Your task to perform on an android device: turn off notifications in google photos Image 0: 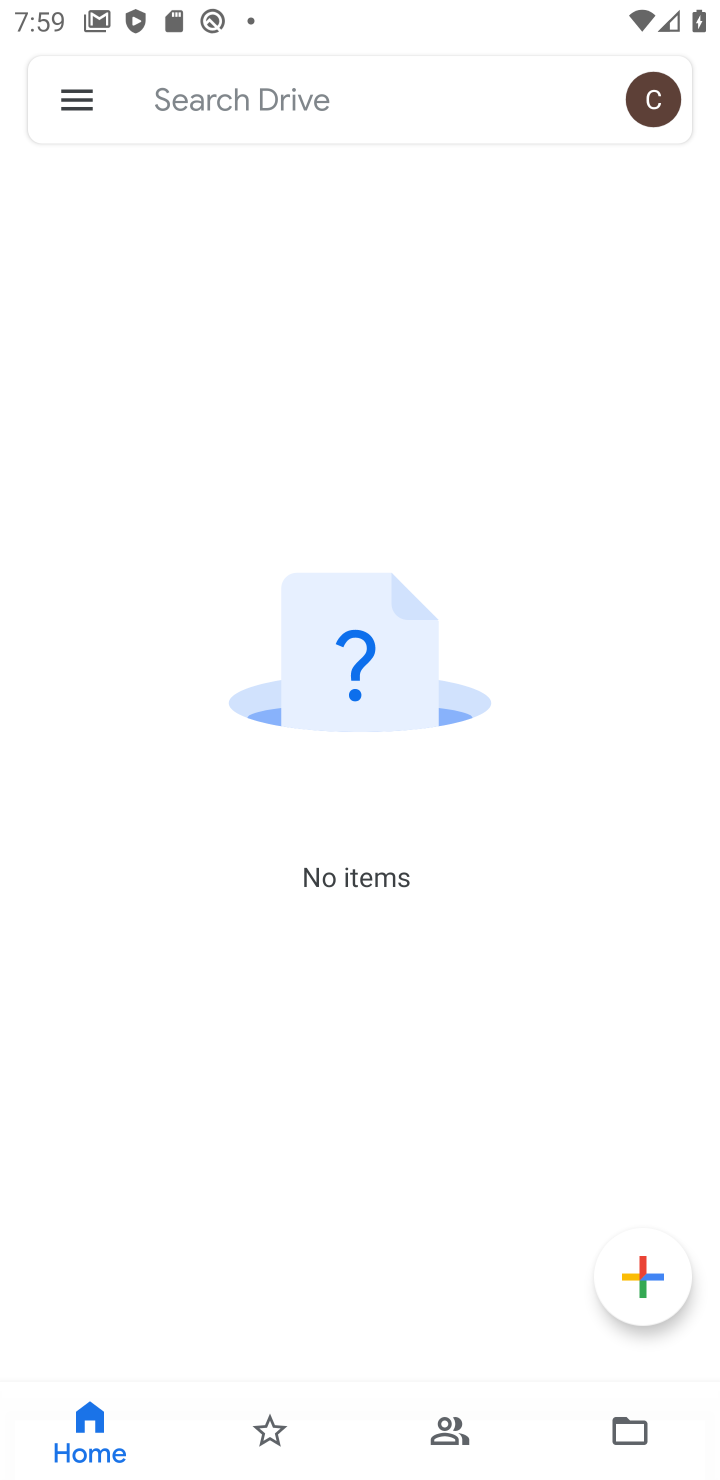
Step 0: press home button
Your task to perform on an android device: turn off notifications in google photos Image 1: 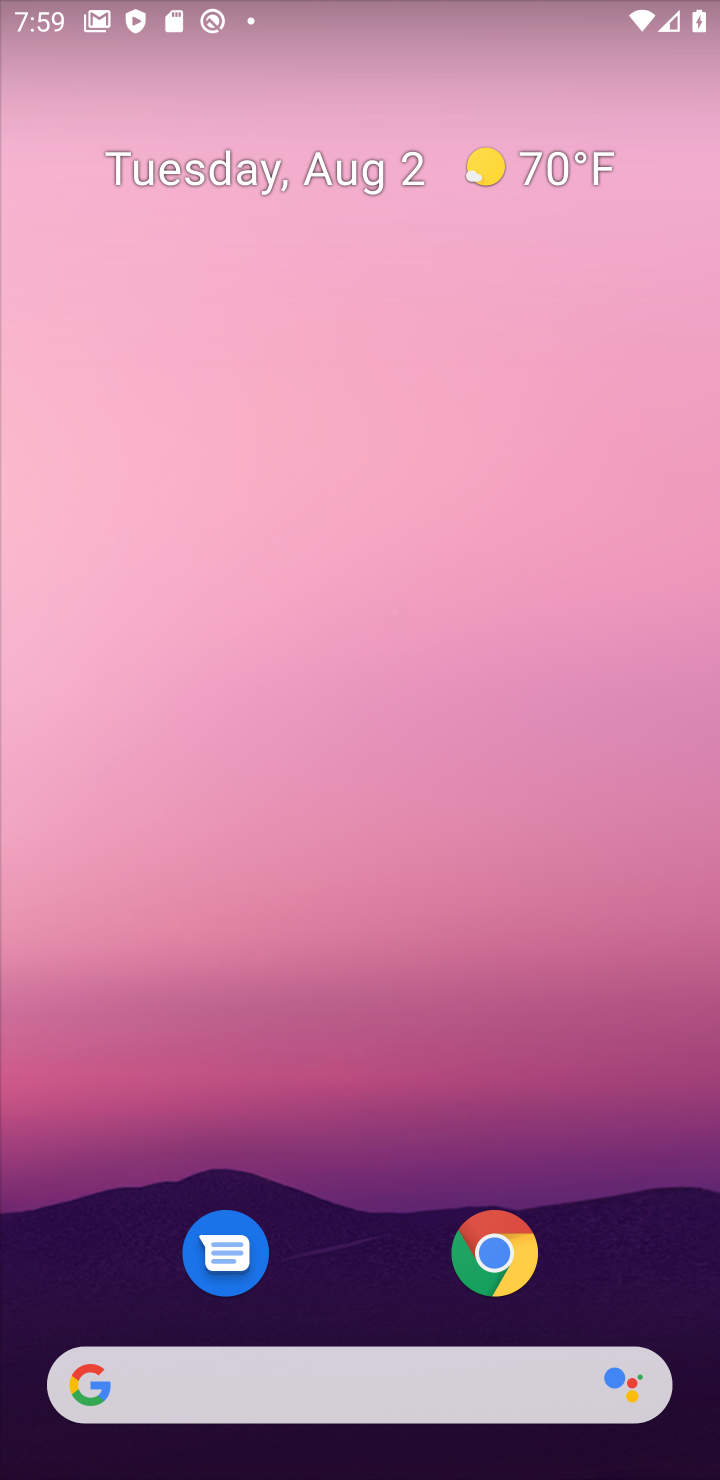
Step 1: drag from (381, 1379) to (577, 250)
Your task to perform on an android device: turn off notifications in google photos Image 2: 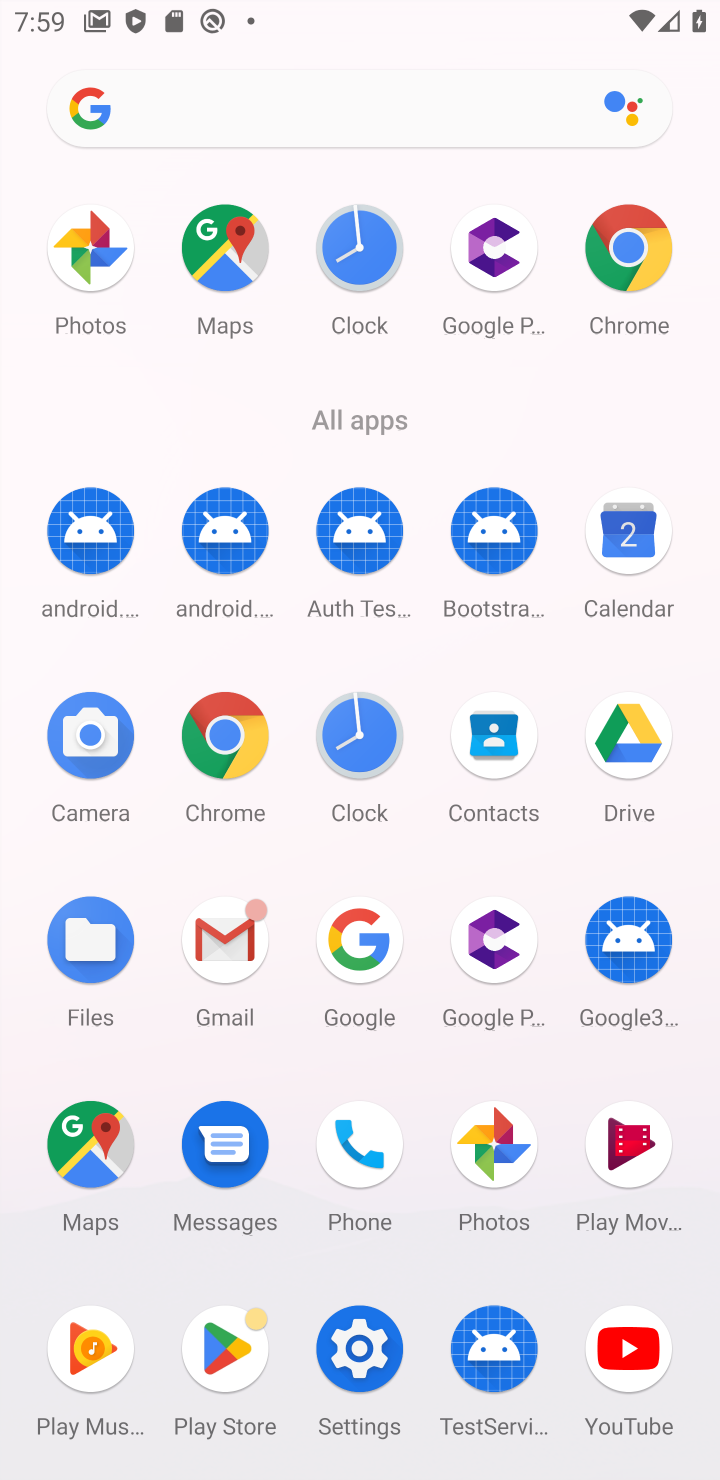
Step 2: click (98, 249)
Your task to perform on an android device: turn off notifications in google photos Image 3: 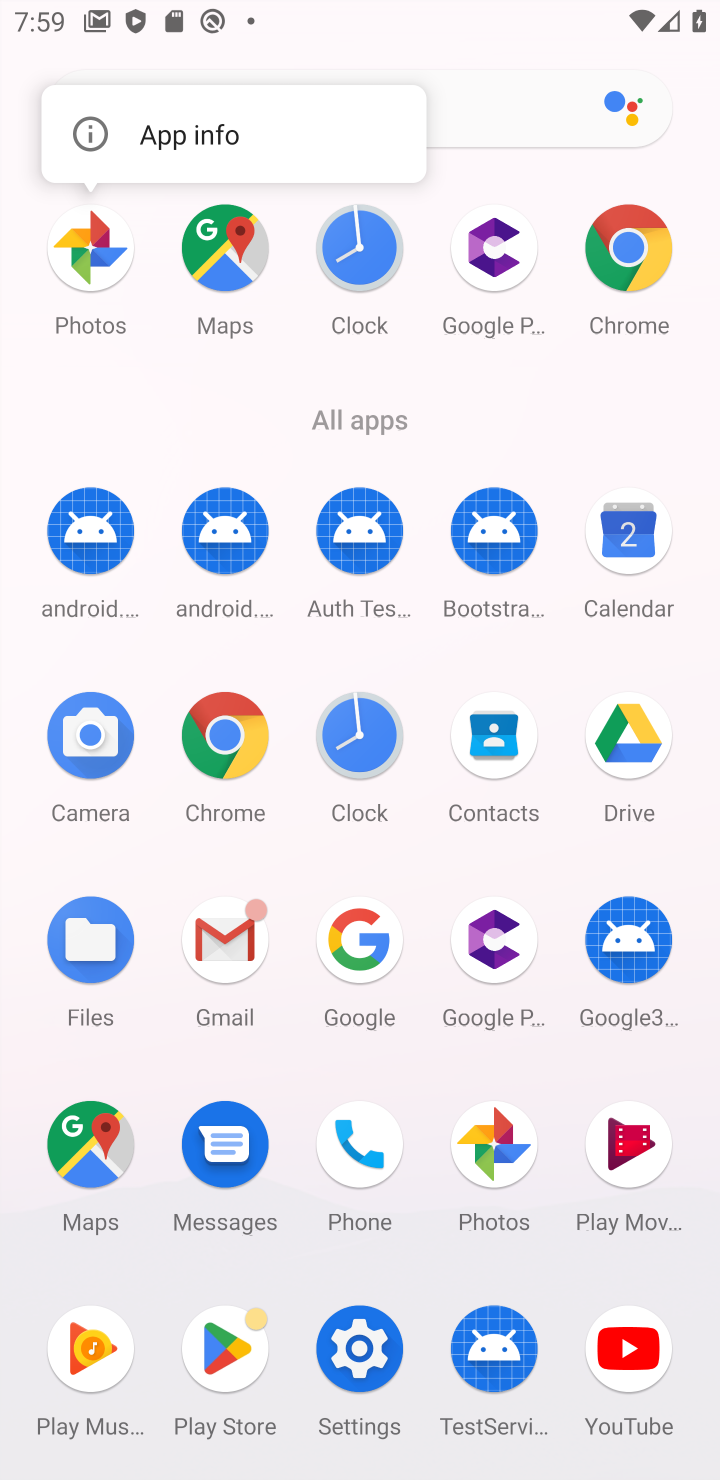
Step 3: click (95, 254)
Your task to perform on an android device: turn off notifications in google photos Image 4: 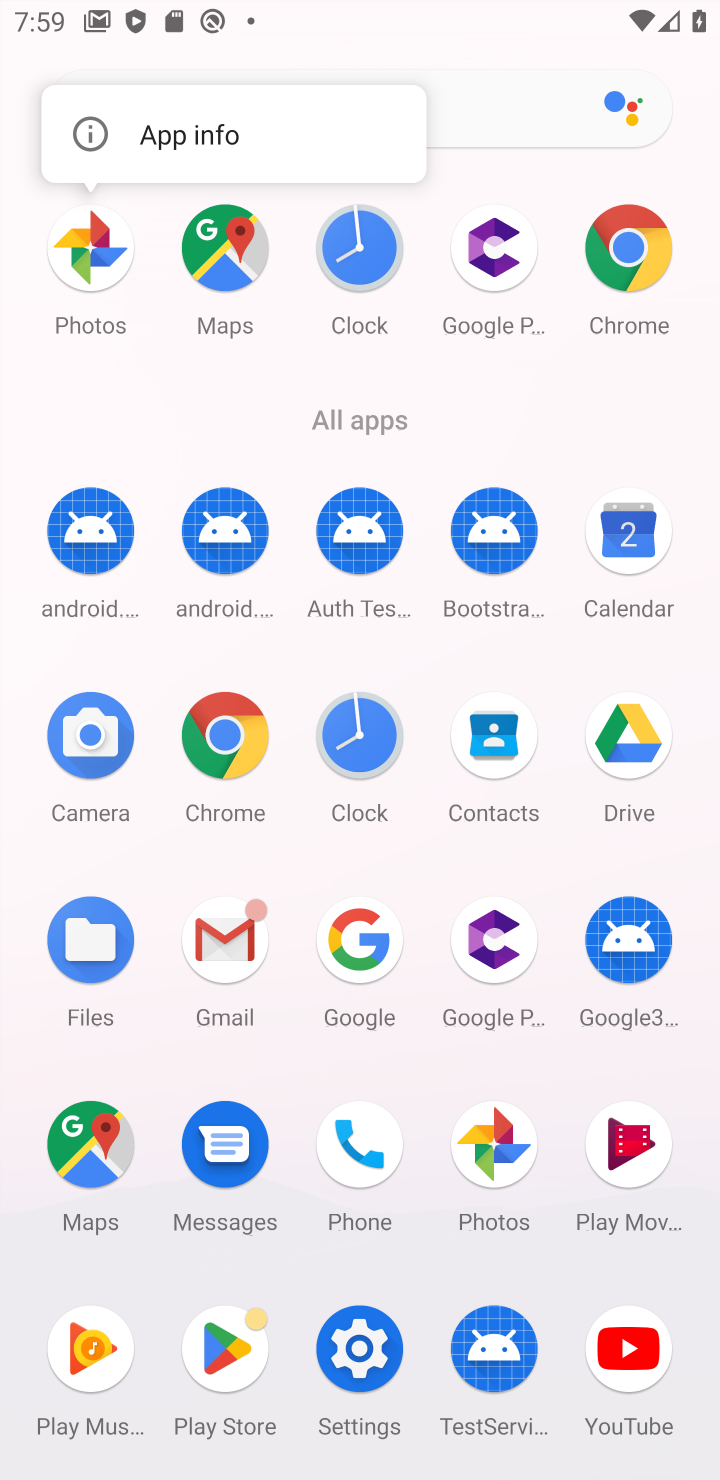
Step 4: click (95, 254)
Your task to perform on an android device: turn off notifications in google photos Image 5: 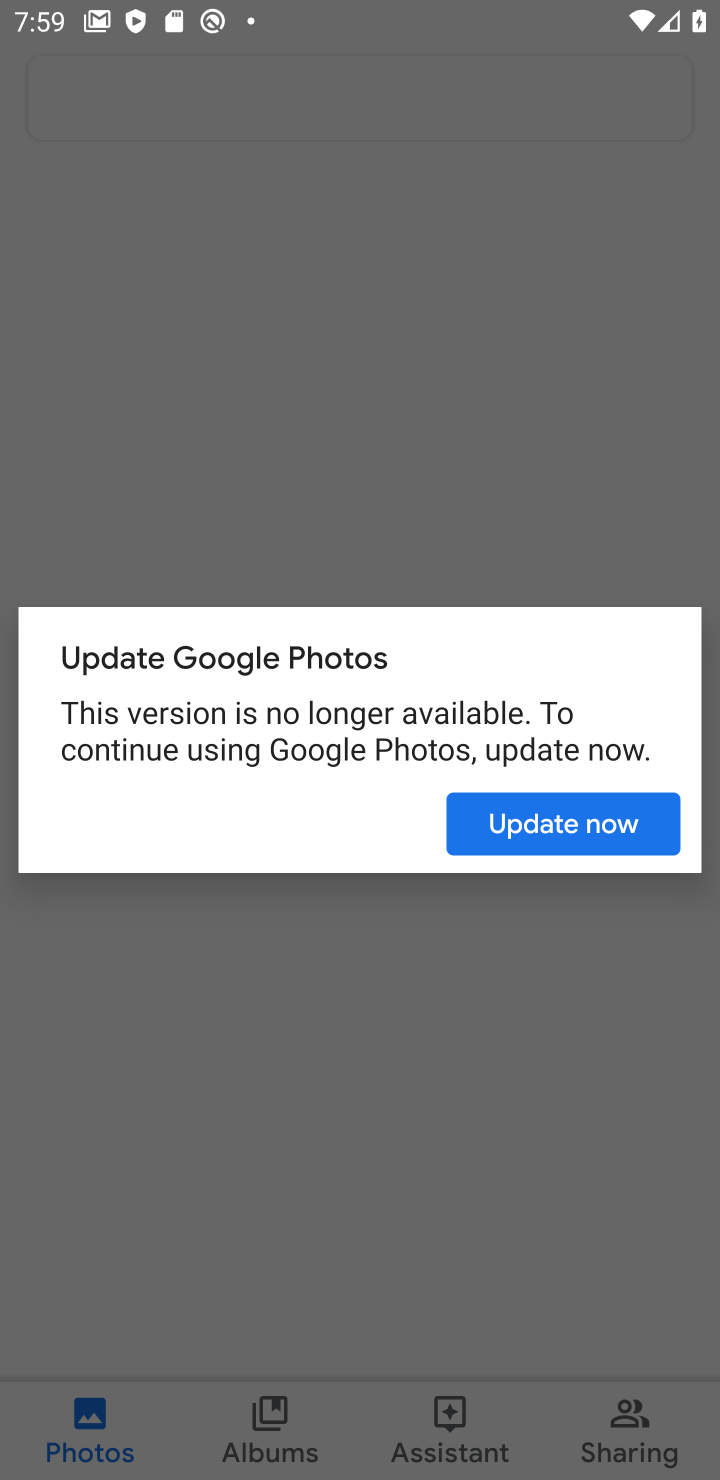
Step 5: click (528, 824)
Your task to perform on an android device: turn off notifications in google photos Image 6: 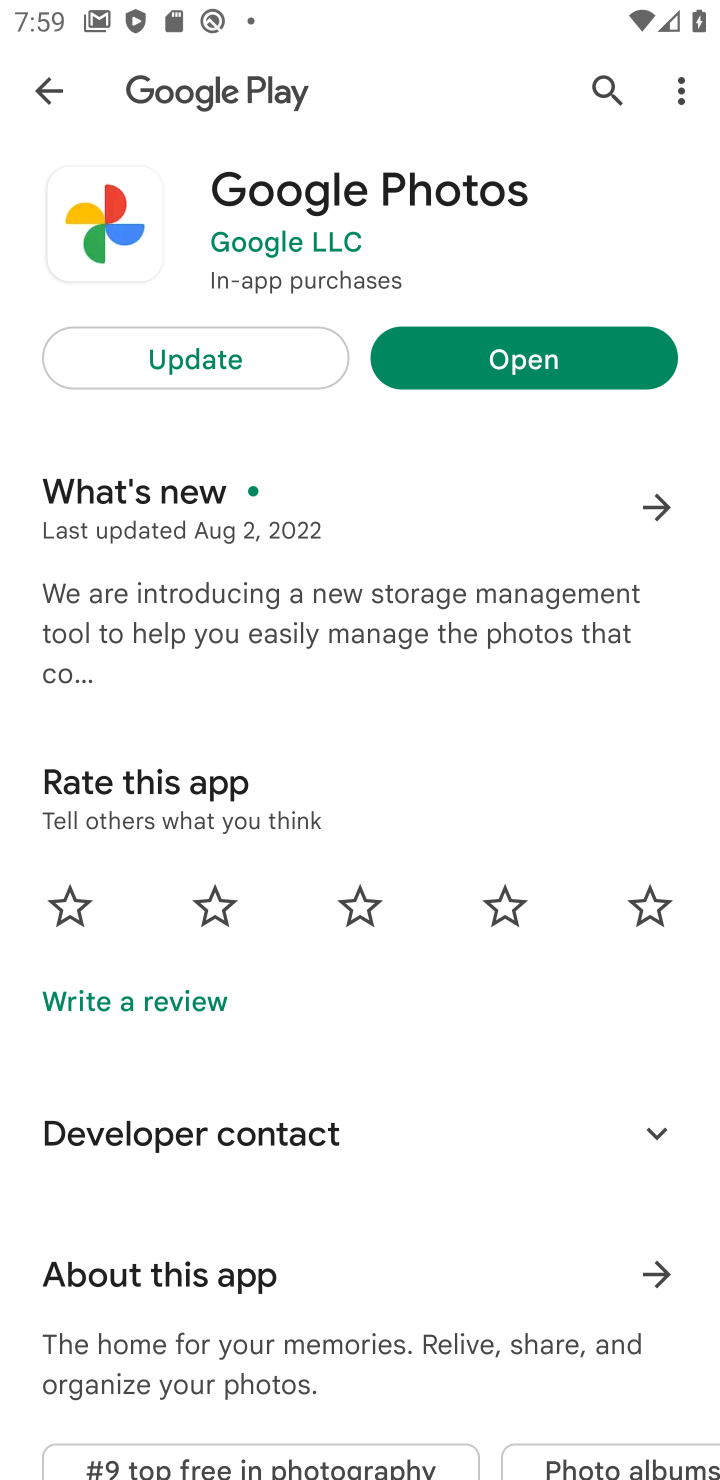
Step 6: click (497, 354)
Your task to perform on an android device: turn off notifications in google photos Image 7: 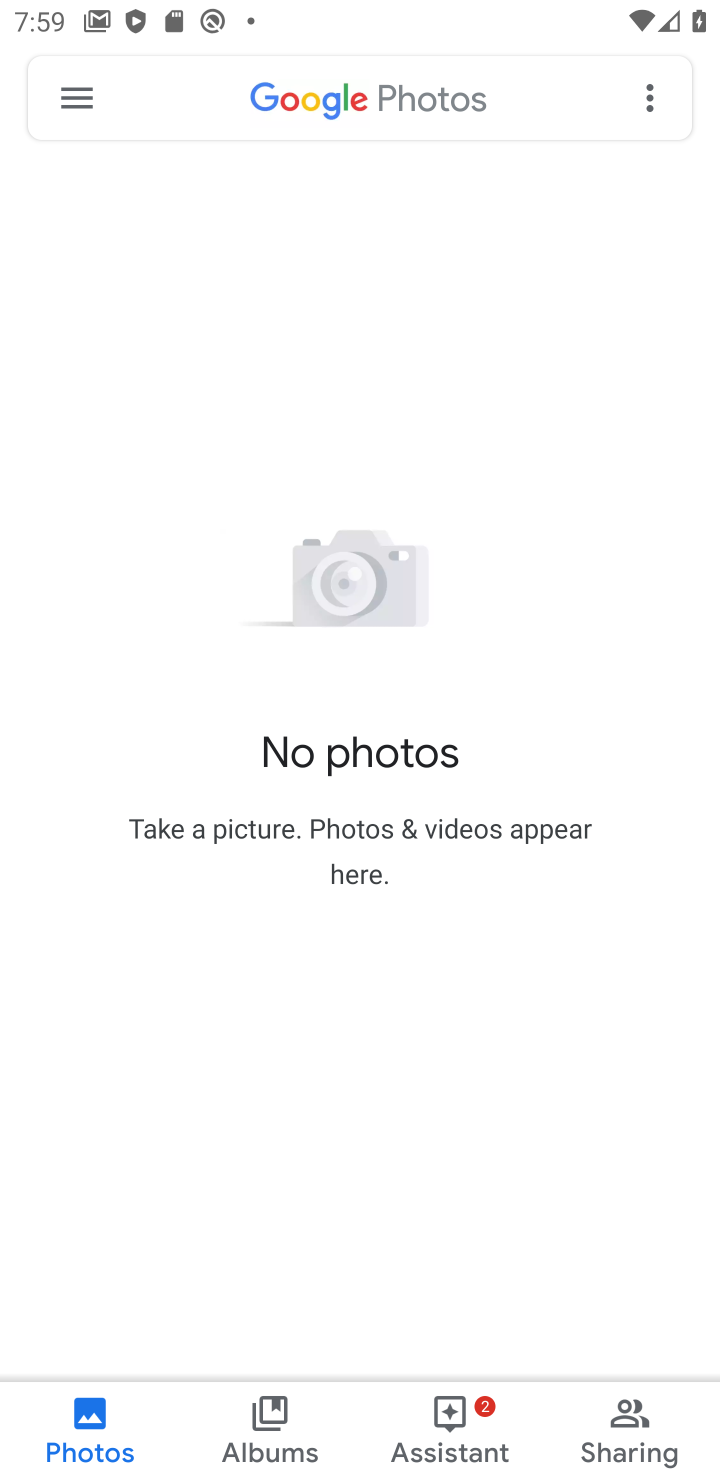
Step 7: click (71, 103)
Your task to perform on an android device: turn off notifications in google photos Image 8: 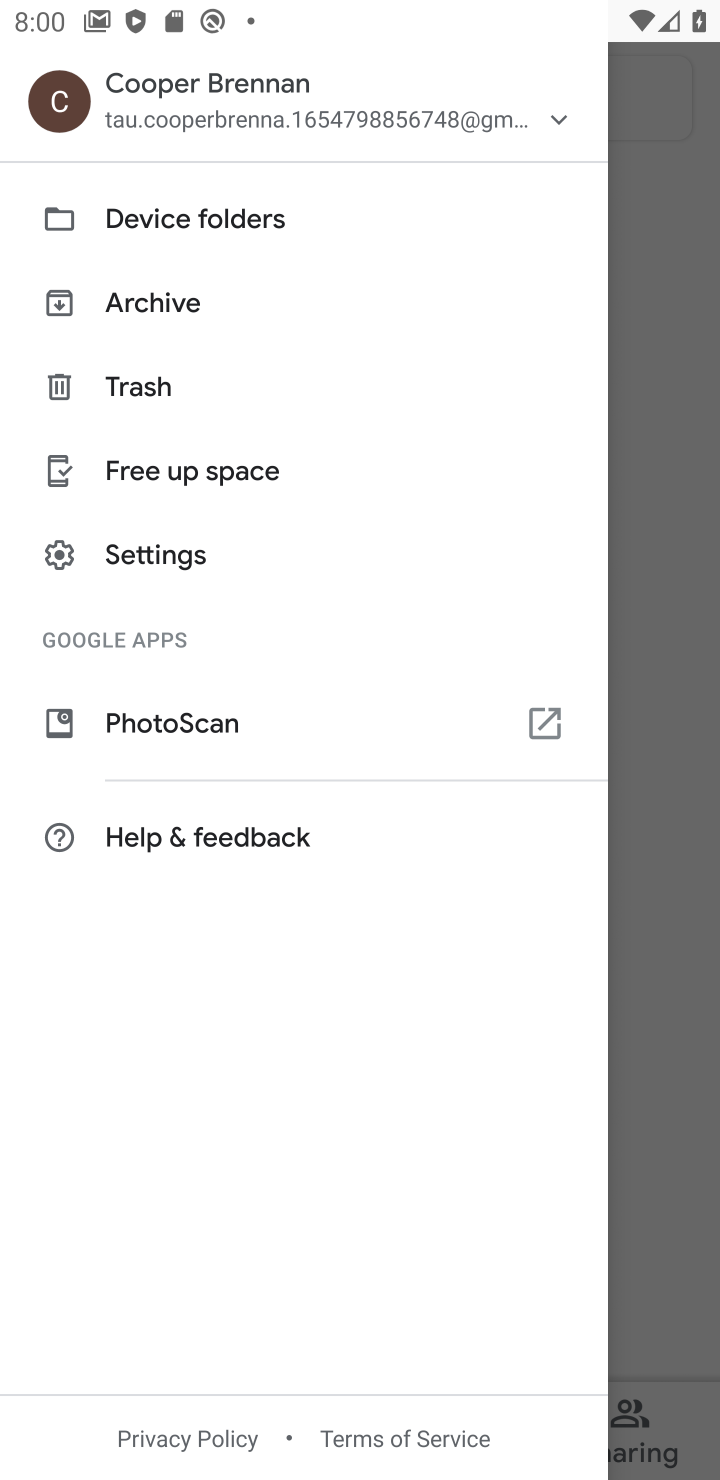
Step 8: click (165, 556)
Your task to perform on an android device: turn off notifications in google photos Image 9: 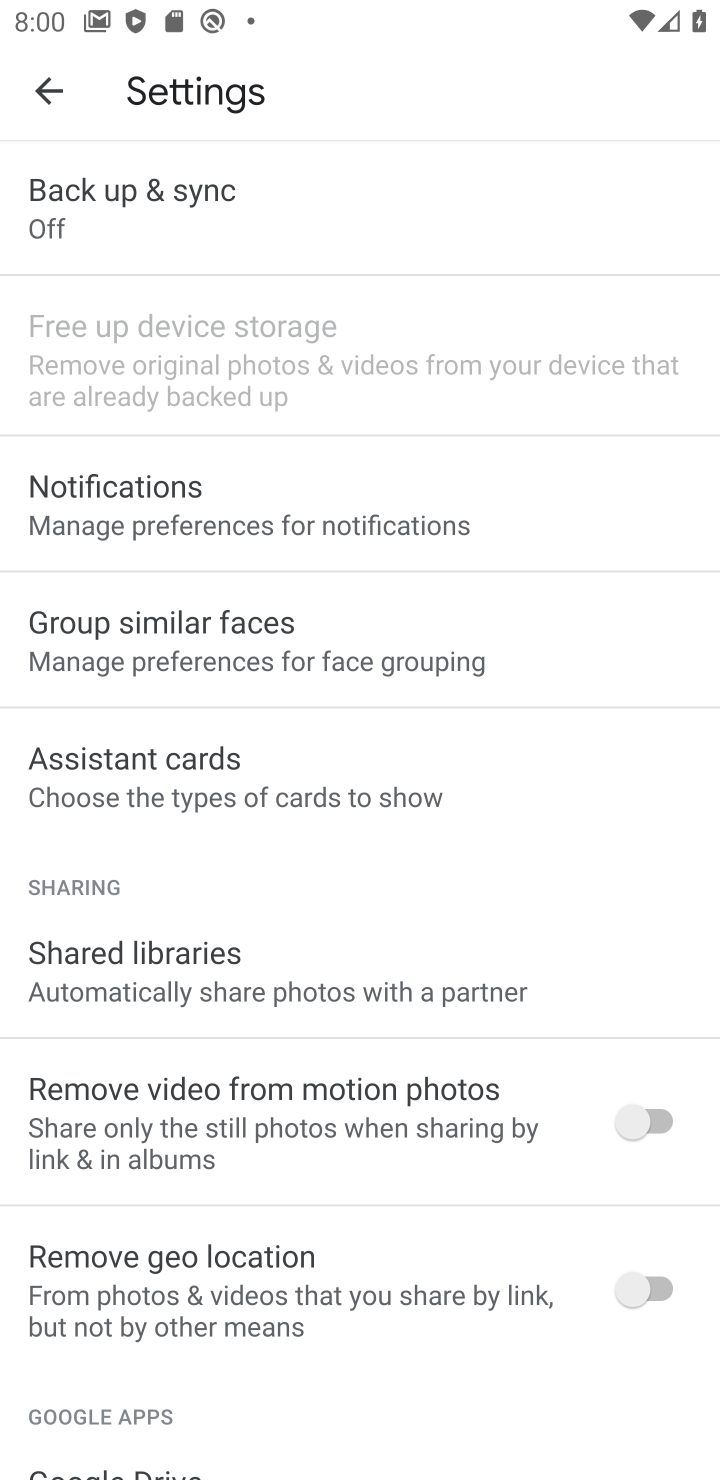
Step 9: click (223, 484)
Your task to perform on an android device: turn off notifications in google photos Image 10: 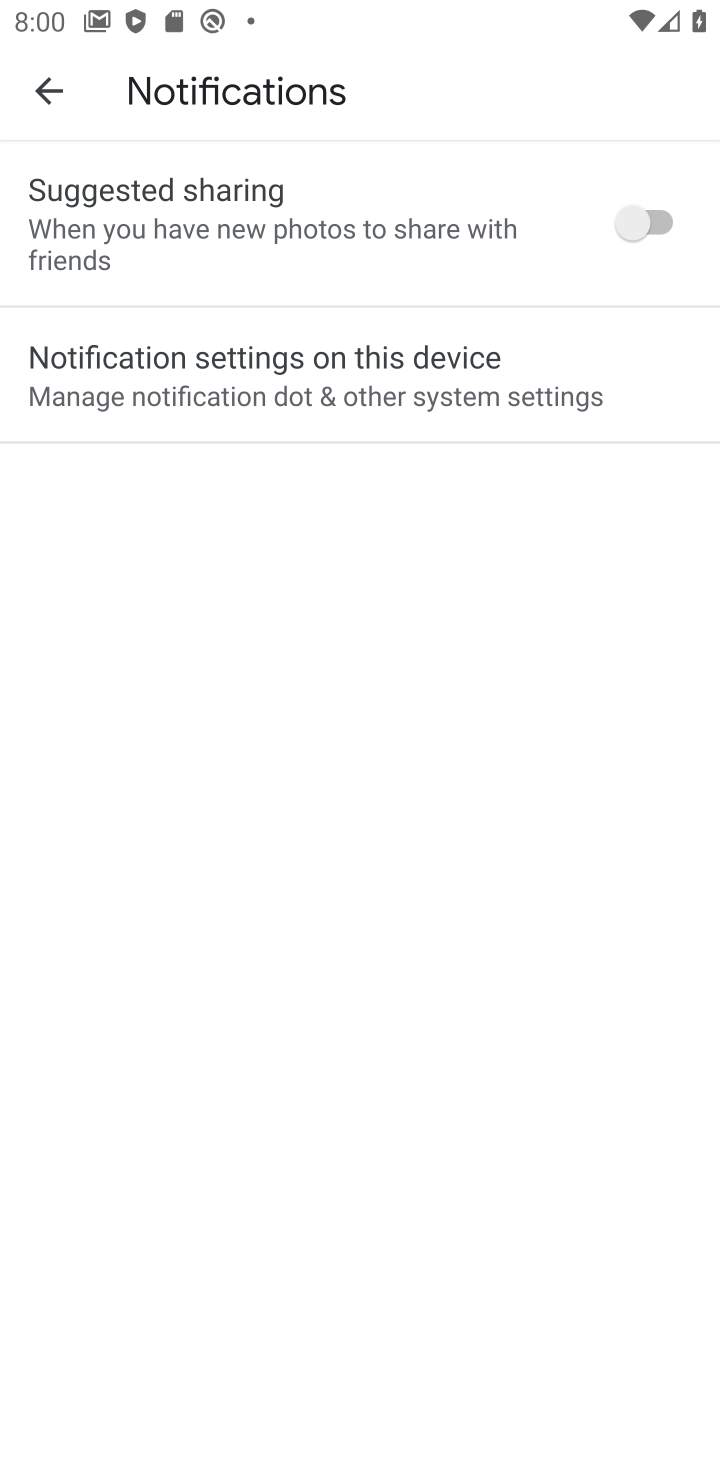
Step 10: click (537, 361)
Your task to perform on an android device: turn off notifications in google photos Image 11: 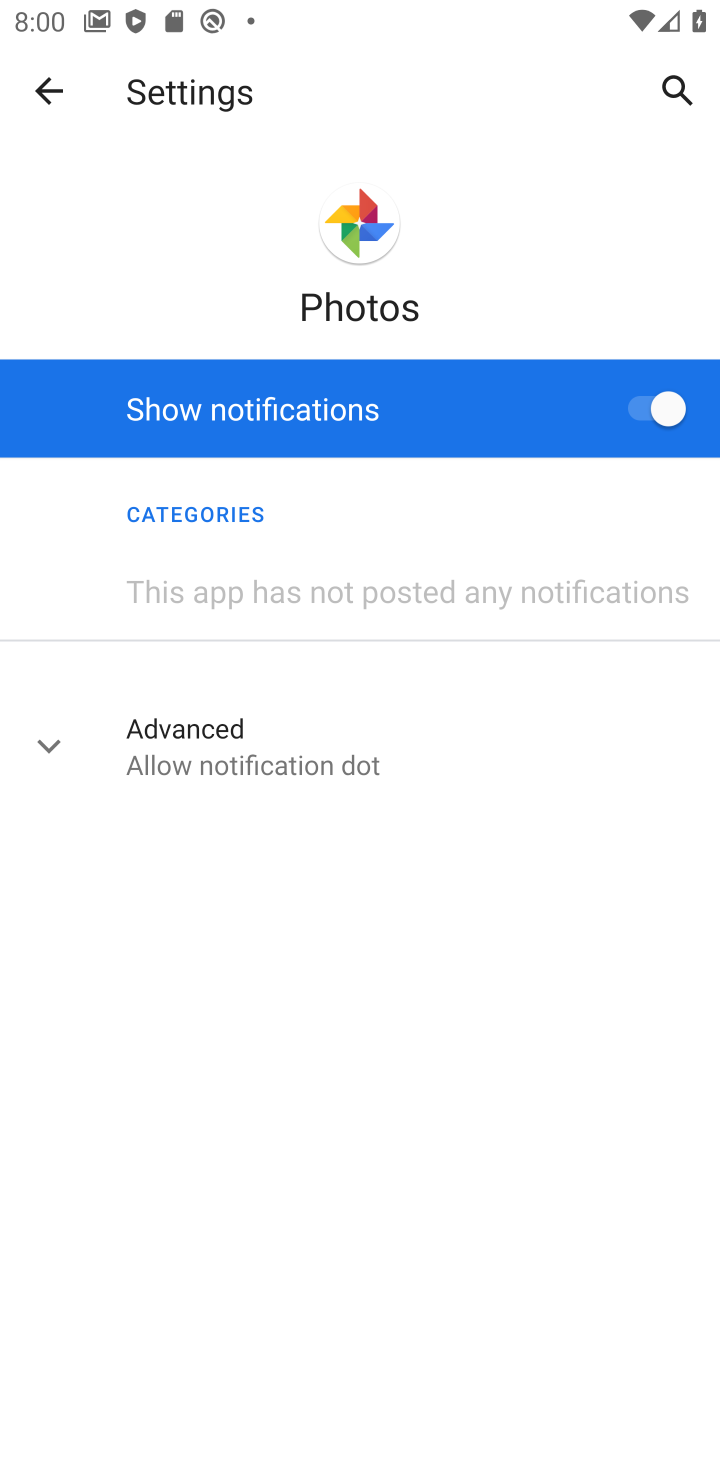
Step 11: click (643, 416)
Your task to perform on an android device: turn off notifications in google photos Image 12: 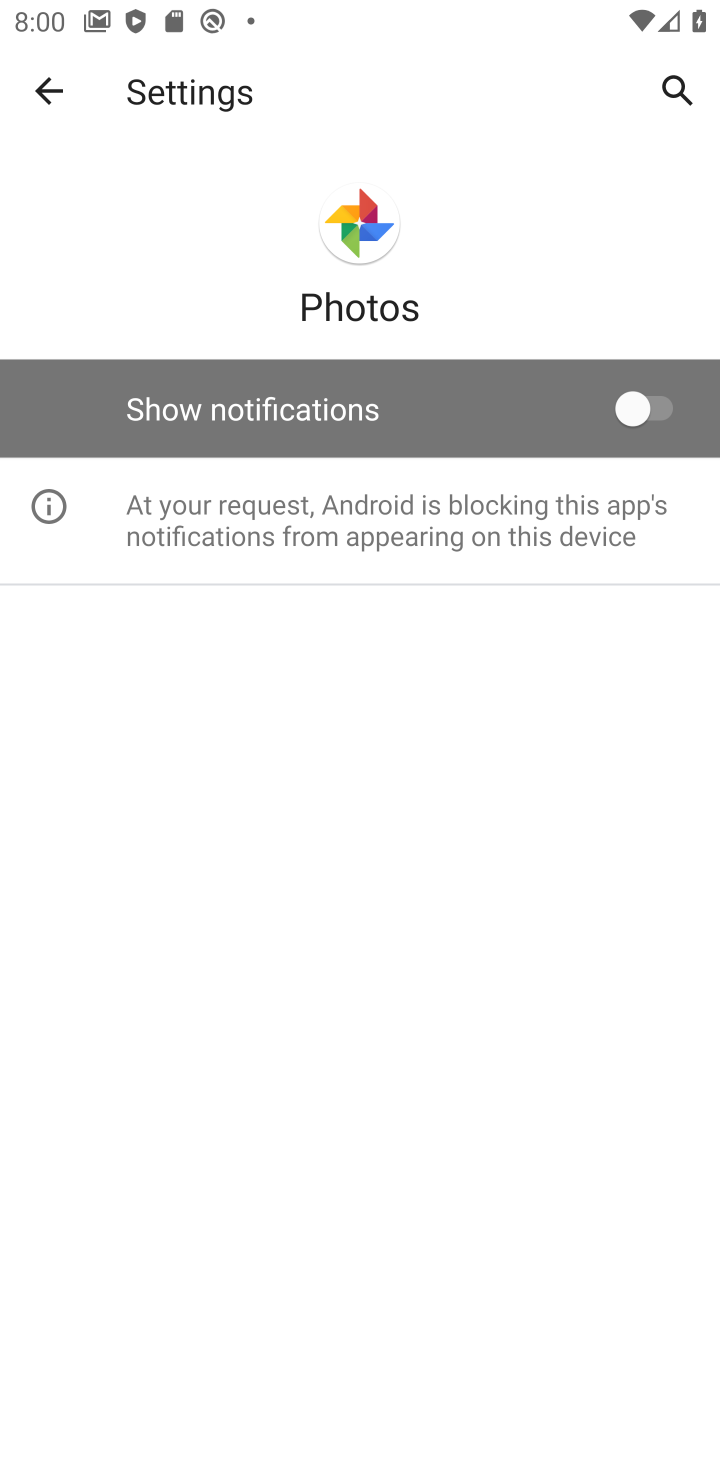
Step 12: task complete